Your task to perform on an android device: delete the emails in spam in the gmail app Image 0: 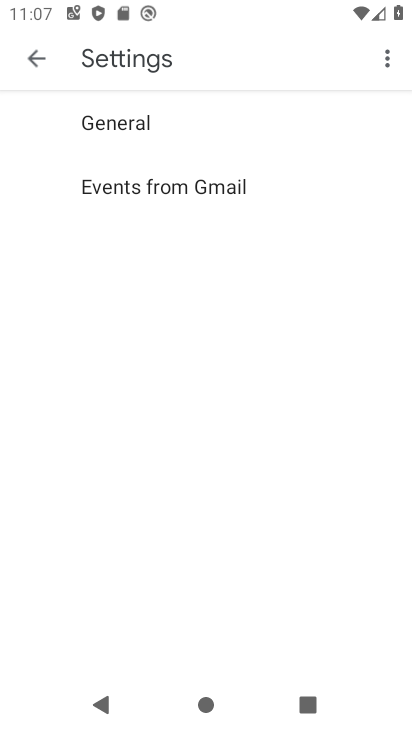
Step 0: press home button
Your task to perform on an android device: delete the emails in spam in the gmail app Image 1: 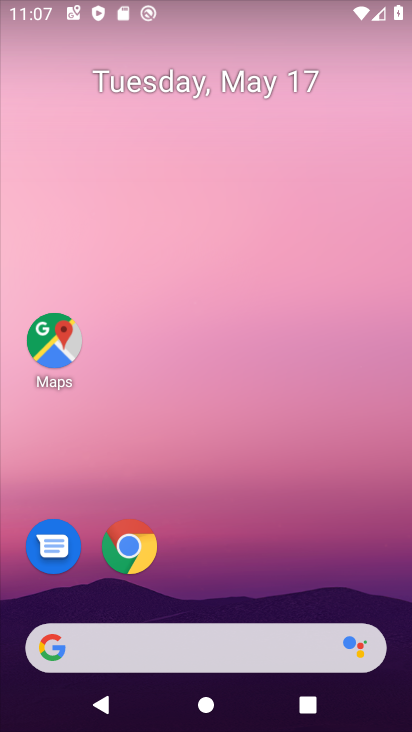
Step 1: drag from (229, 586) to (165, 320)
Your task to perform on an android device: delete the emails in spam in the gmail app Image 2: 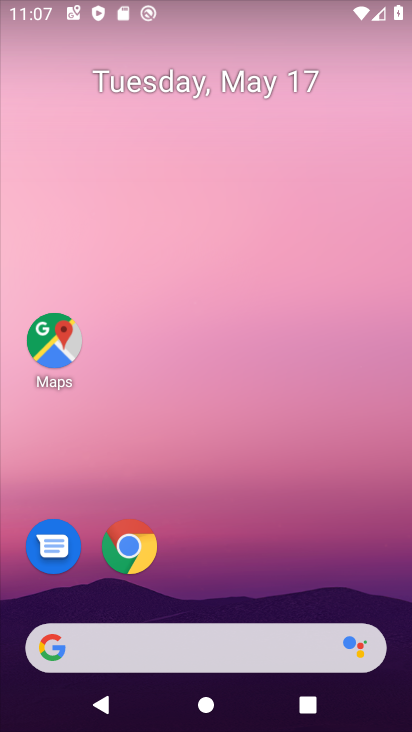
Step 2: click (165, 320)
Your task to perform on an android device: delete the emails in spam in the gmail app Image 3: 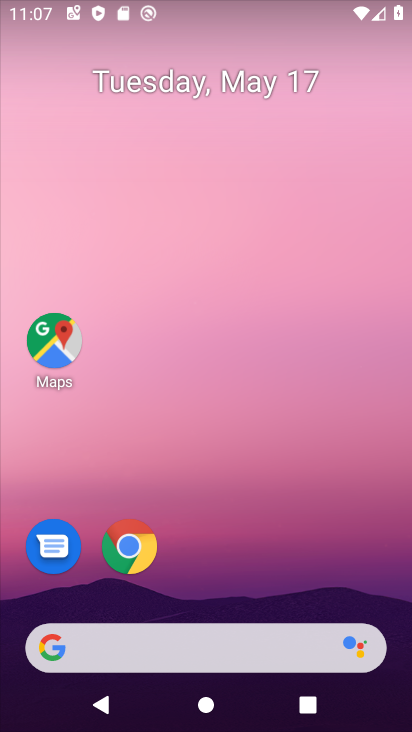
Step 3: click (165, 320)
Your task to perform on an android device: delete the emails in spam in the gmail app Image 4: 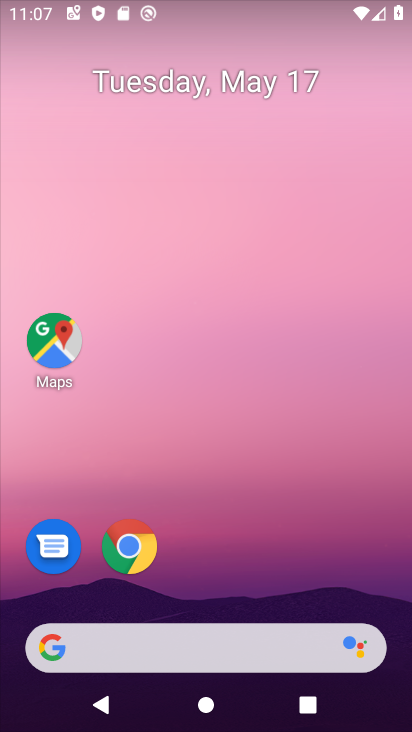
Step 4: drag from (245, 582) to (209, 199)
Your task to perform on an android device: delete the emails in spam in the gmail app Image 5: 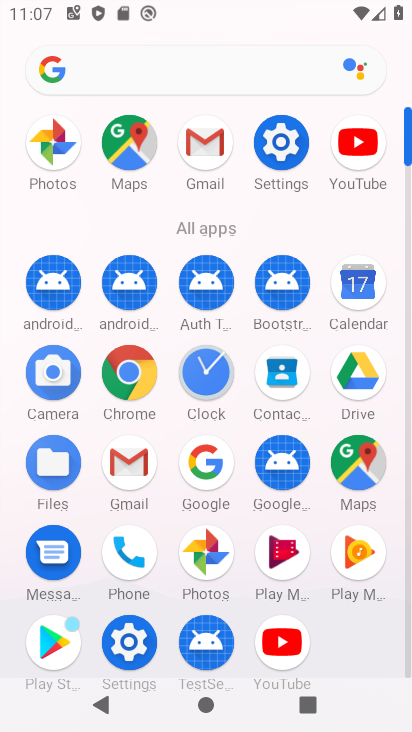
Step 5: click (204, 179)
Your task to perform on an android device: delete the emails in spam in the gmail app Image 6: 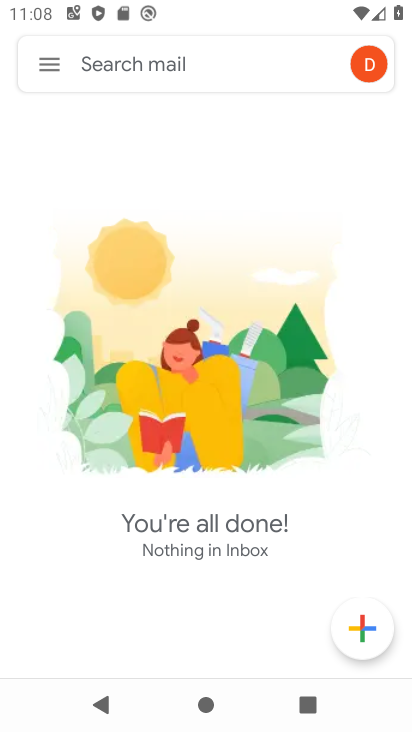
Step 6: click (48, 75)
Your task to perform on an android device: delete the emails in spam in the gmail app Image 7: 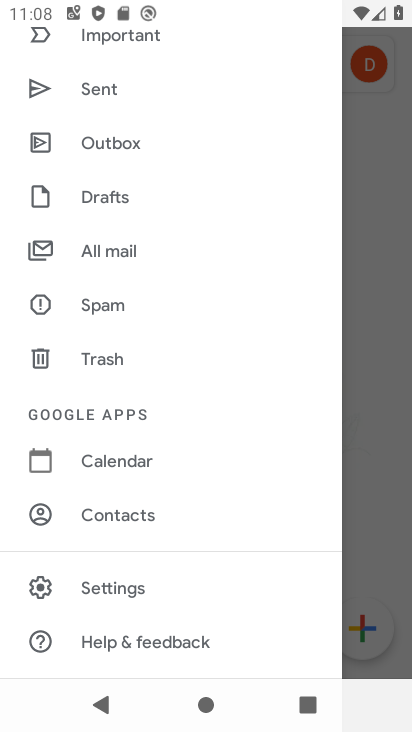
Step 7: drag from (198, 606) to (201, 204)
Your task to perform on an android device: delete the emails in spam in the gmail app Image 8: 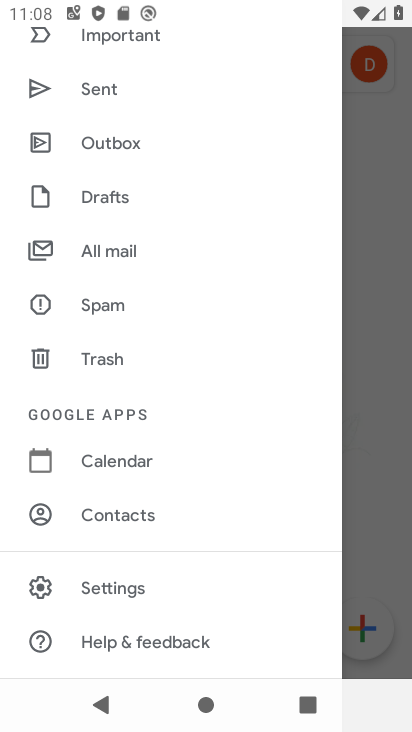
Step 8: click (185, 311)
Your task to perform on an android device: delete the emails in spam in the gmail app Image 9: 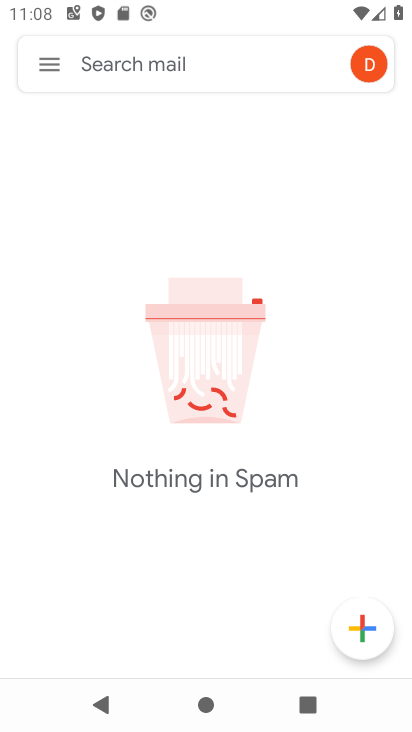
Step 9: task complete